Your task to perform on an android device: clear history in the chrome app Image 0: 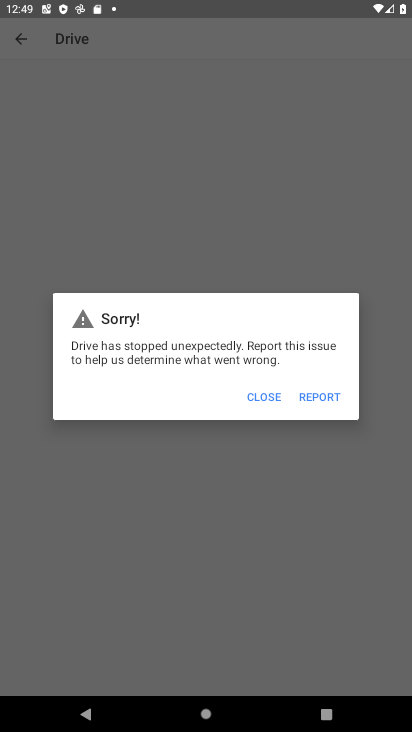
Step 0: press home button
Your task to perform on an android device: clear history in the chrome app Image 1: 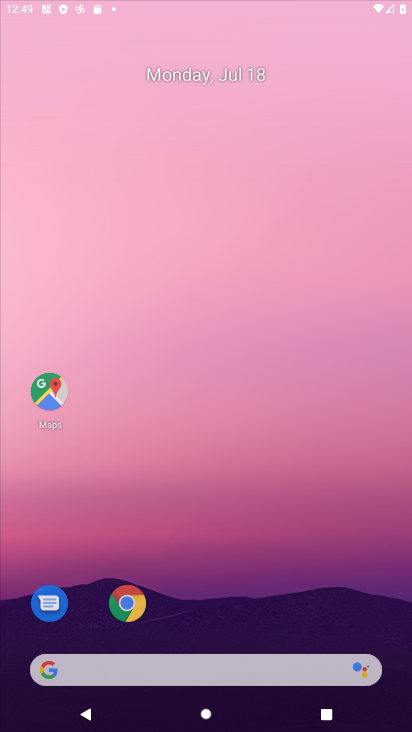
Step 1: drag from (385, 673) to (307, 8)
Your task to perform on an android device: clear history in the chrome app Image 2: 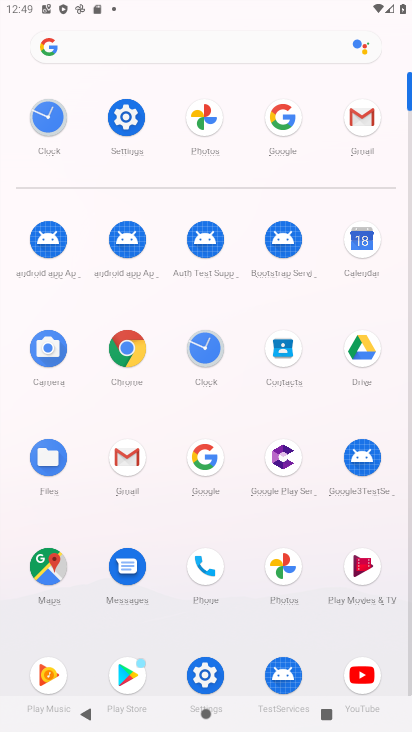
Step 2: click (121, 349)
Your task to perform on an android device: clear history in the chrome app Image 3: 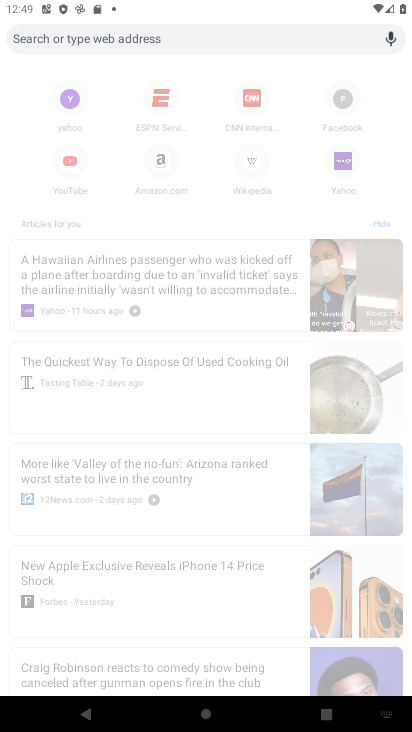
Step 3: press back button
Your task to perform on an android device: clear history in the chrome app Image 4: 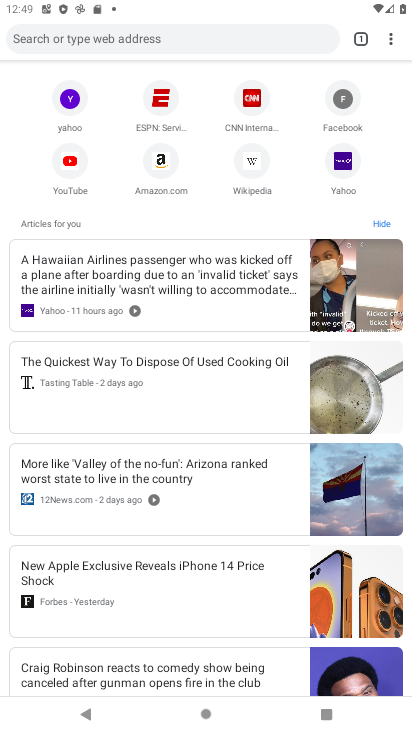
Step 4: click (391, 42)
Your task to perform on an android device: clear history in the chrome app Image 5: 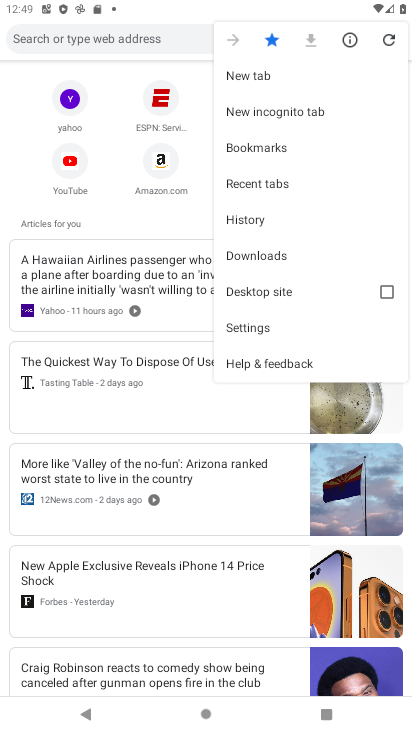
Step 5: click (258, 215)
Your task to perform on an android device: clear history in the chrome app Image 6: 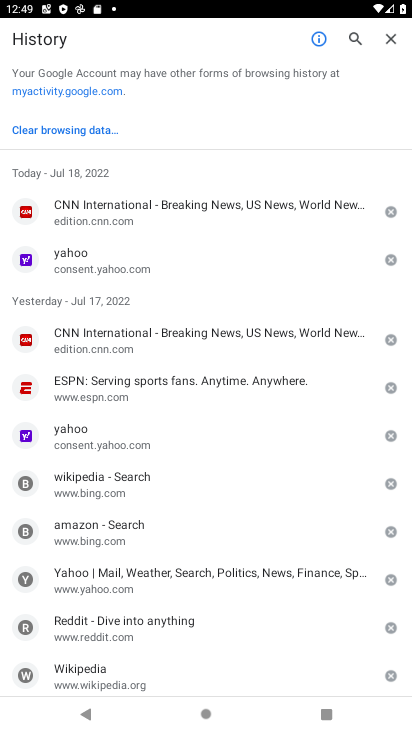
Step 6: click (64, 125)
Your task to perform on an android device: clear history in the chrome app Image 7: 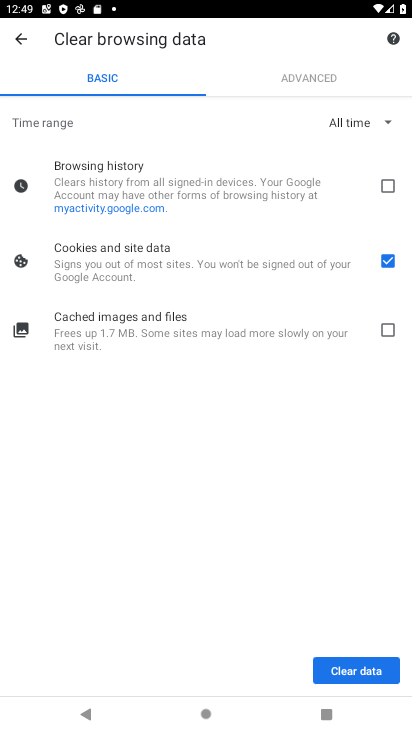
Step 7: click (352, 201)
Your task to perform on an android device: clear history in the chrome app Image 8: 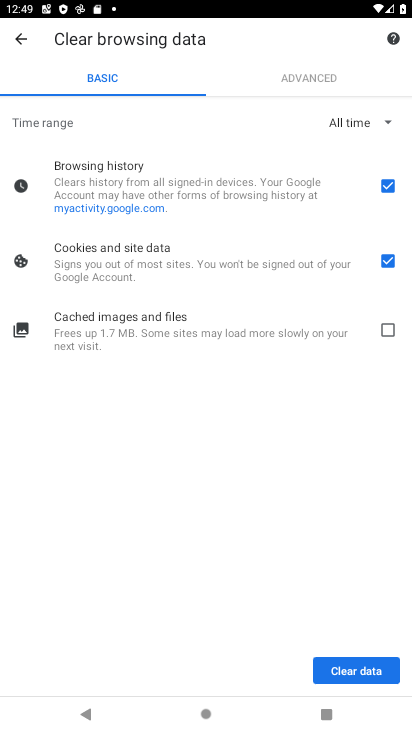
Step 8: click (340, 667)
Your task to perform on an android device: clear history in the chrome app Image 9: 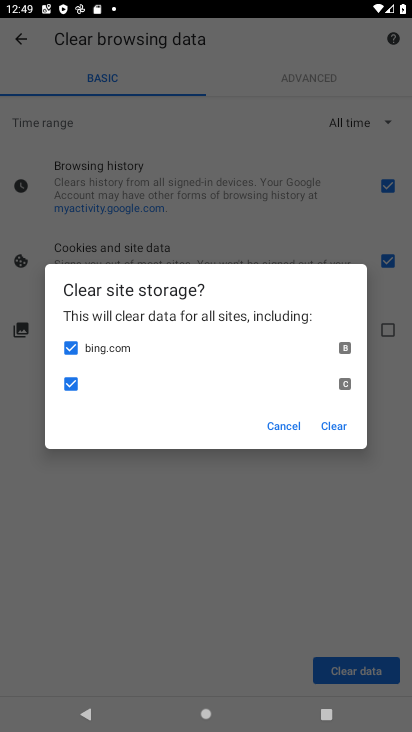
Step 9: click (331, 415)
Your task to perform on an android device: clear history in the chrome app Image 10: 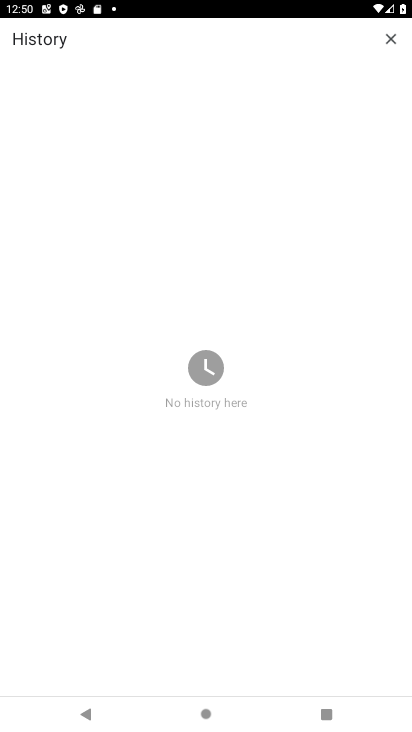
Step 10: task complete